Your task to perform on an android device: turn on javascript in the chrome app Image 0: 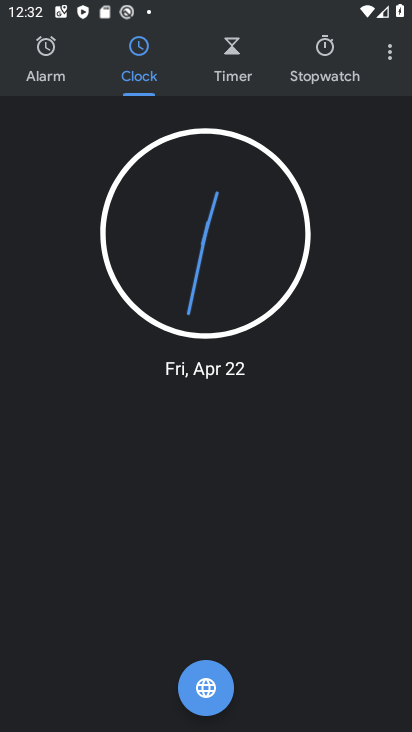
Step 0: press home button
Your task to perform on an android device: turn on javascript in the chrome app Image 1: 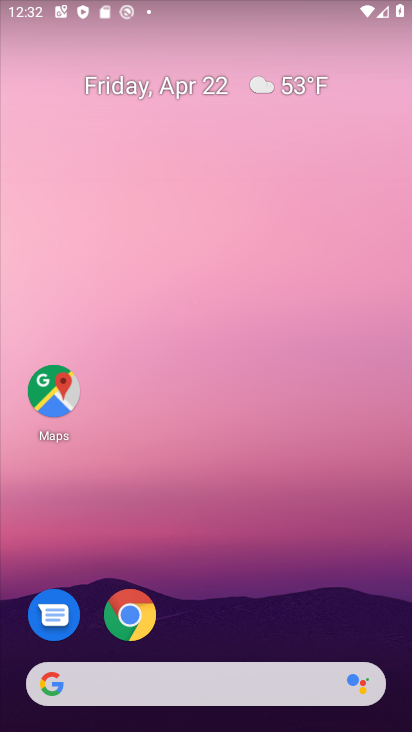
Step 1: click (133, 618)
Your task to perform on an android device: turn on javascript in the chrome app Image 2: 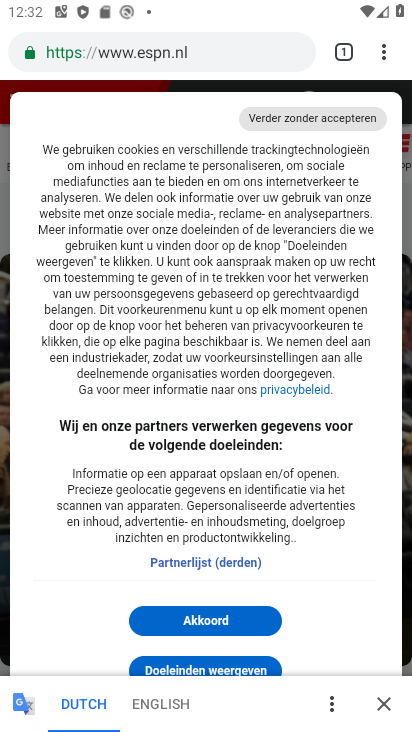
Step 2: click (384, 55)
Your task to perform on an android device: turn on javascript in the chrome app Image 3: 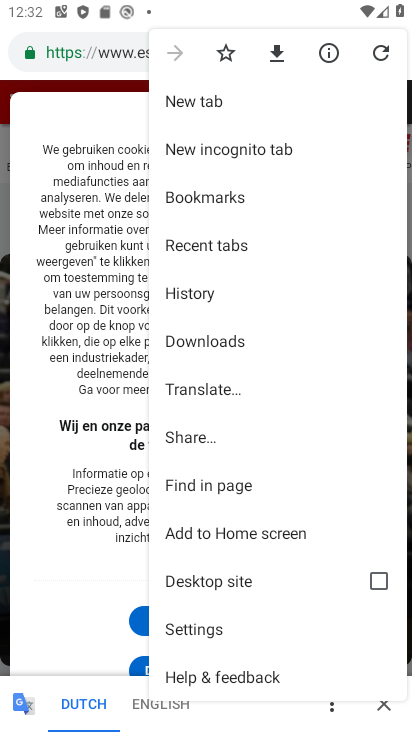
Step 3: click (177, 633)
Your task to perform on an android device: turn on javascript in the chrome app Image 4: 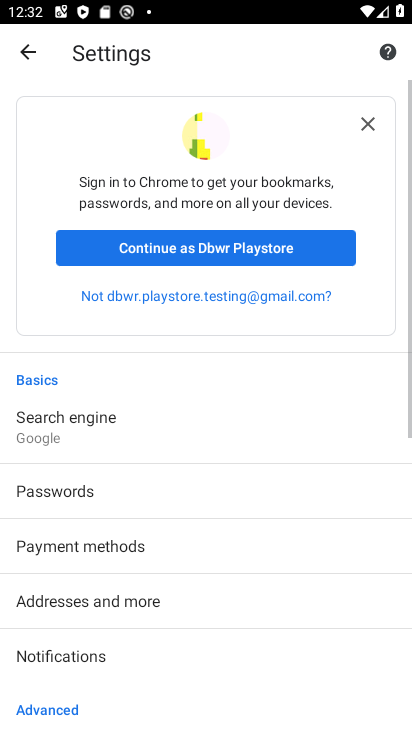
Step 4: drag from (224, 595) to (219, 271)
Your task to perform on an android device: turn on javascript in the chrome app Image 5: 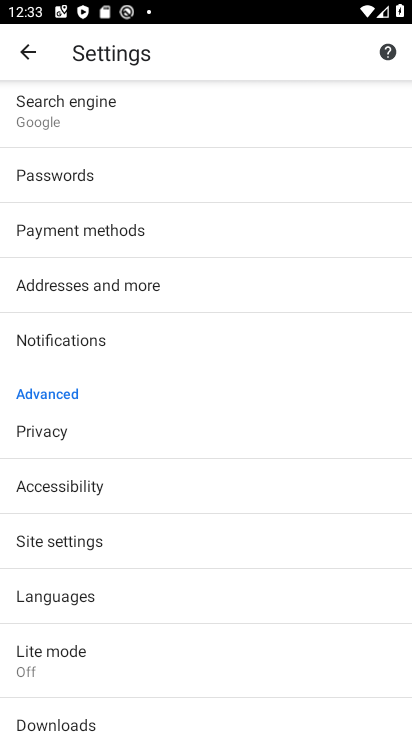
Step 5: click (60, 543)
Your task to perform on an android device: turn on javascript in the chrome app Image 6: 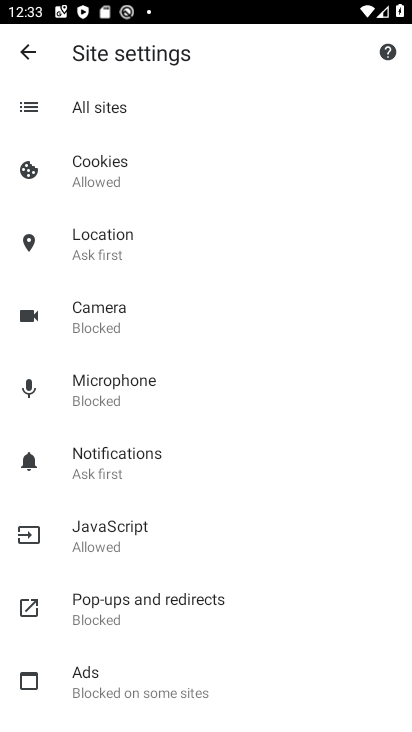
Step 6: click (115, 530)
Your task to perform on an android device: turn on javascript in the chrome app Image 7: 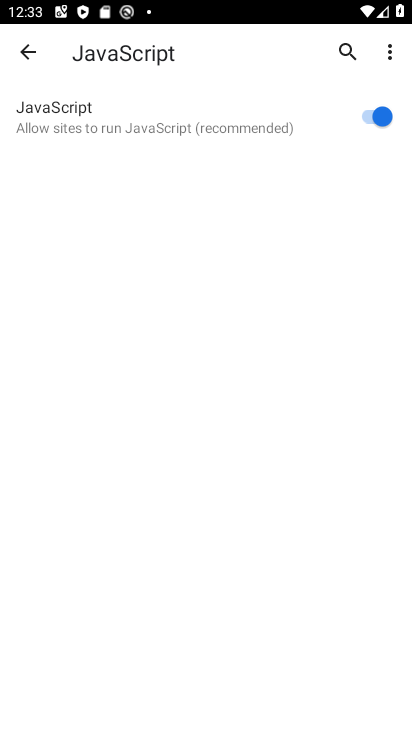
Step 7: task complete